Your task to perform on an android device: Open Maps and search for coffee Image 0: 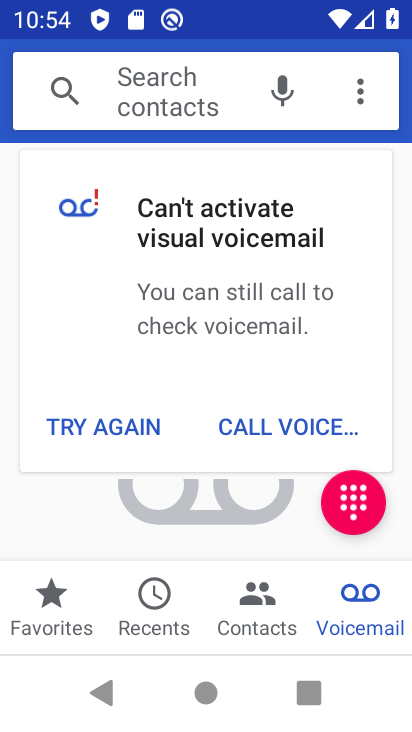
Step 0: press home button
Your task to perform on an android device: Open Maps and search for coffee Image 1: 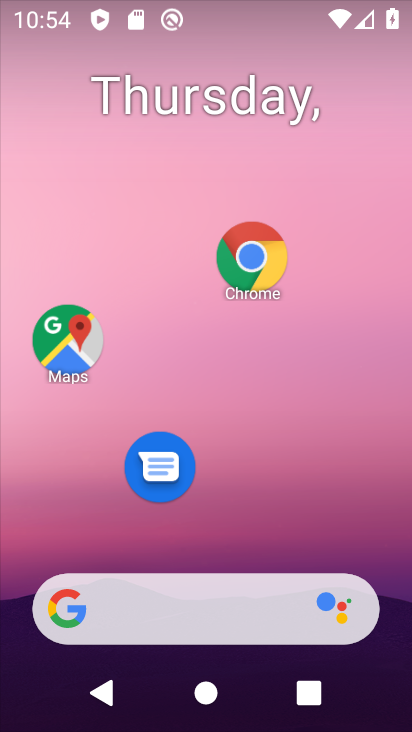
Step 1: click (68, 318)
Your task to perform on an android device: Open Maps and search for coffee Image 2: 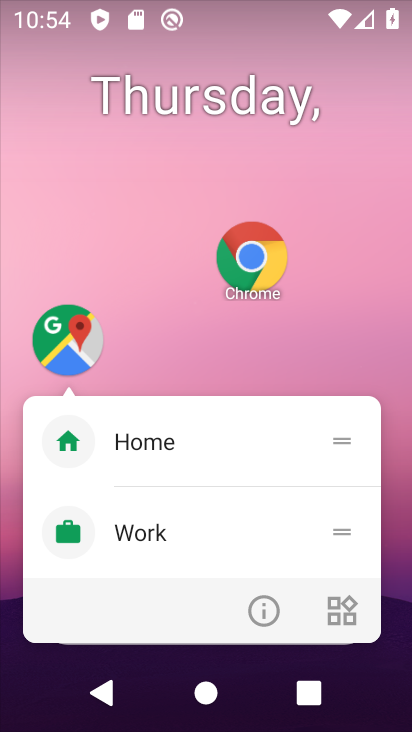
Step 2: click (67, 327)
Your task to perform on an android device: Open Maps and search for coffee Image 3: 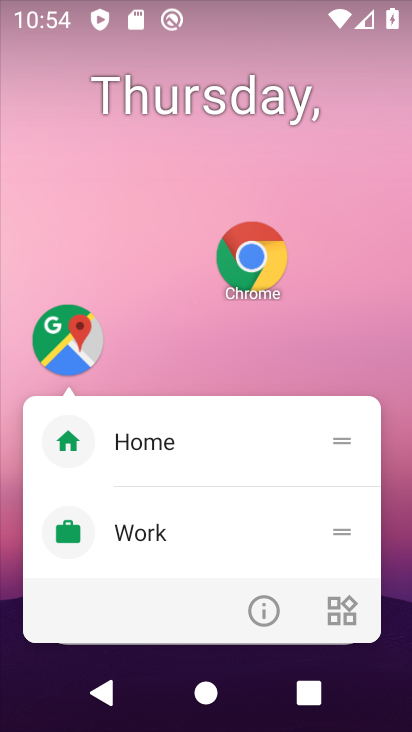
Step 3: click (69, 343)
Your task to perform on an android device: Open Maps and search for coffee Image 4: 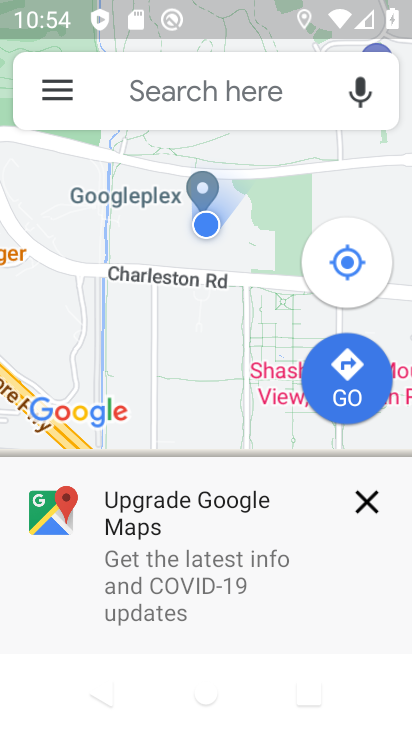
Step 4: click (136, 85)
Your task to perform on an android device: Open Maps and search for coffee Image 5: 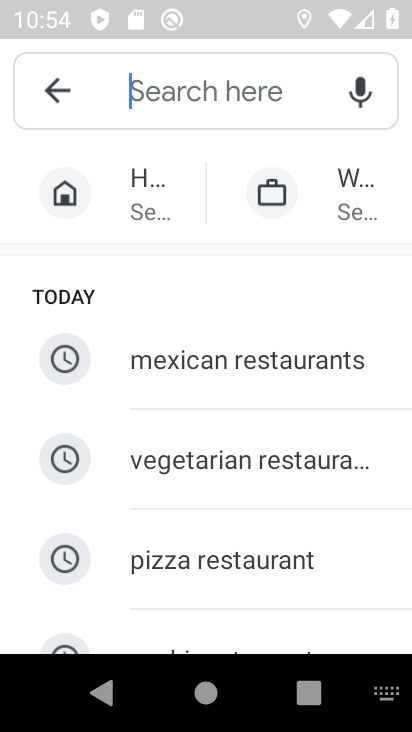
Step 5: type "coffee"
Your task to perform on an android device: Open Maps and search for coffee Image 6: 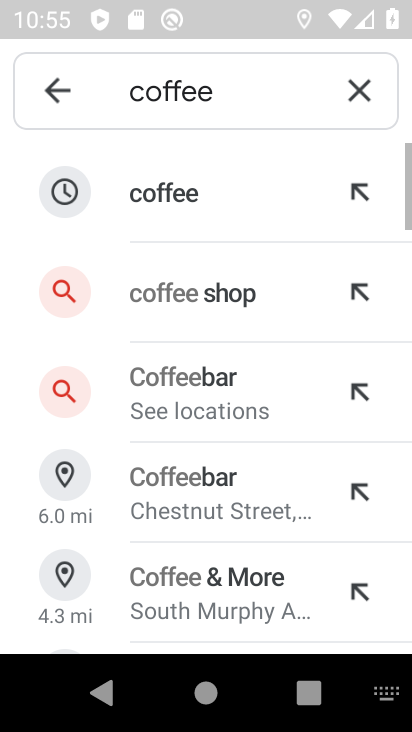
Step 6: click (182, 192)
Your task to perform on an android device: Open Maps and search for coffee Image 7: 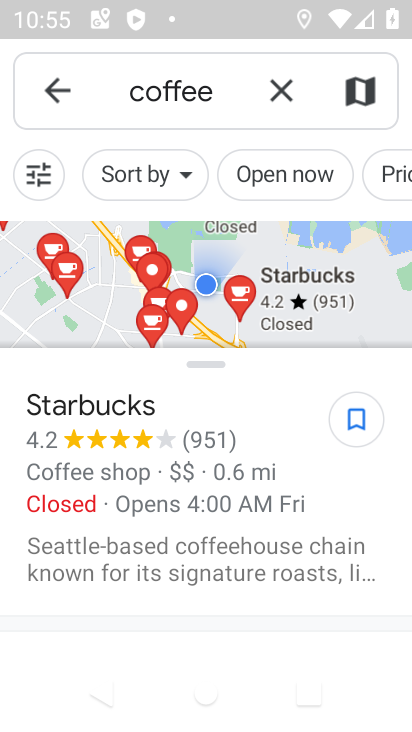
Step 7: task complete